Your task to perform on an android device: Open eBay Image 0: 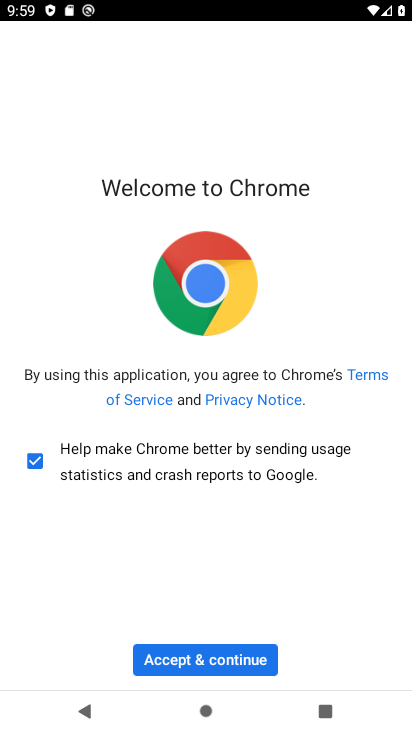
Step 0: press home button
Your task to perform on an android device: Open eBay Image 1: 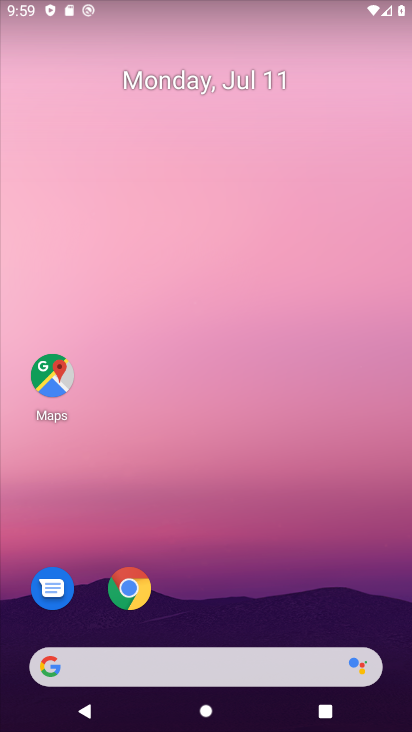
Step 1: drag from (201, 612) to (329, 75)
Your task to perform on an android device: Open eBay Image 2: 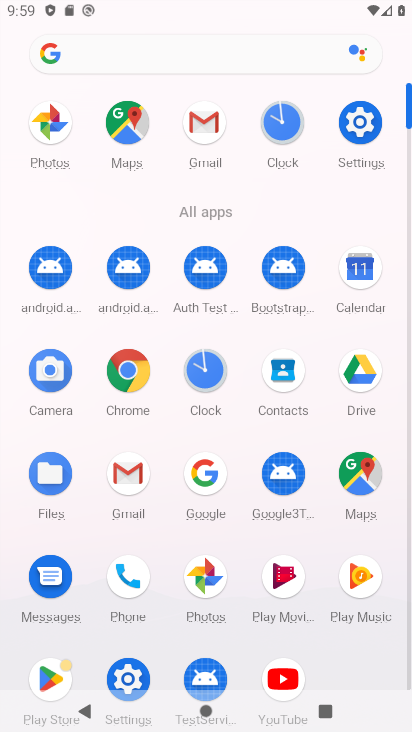
Step 2: click (124, 374)
Your task to perform on an android device: Open eBay Image 3: 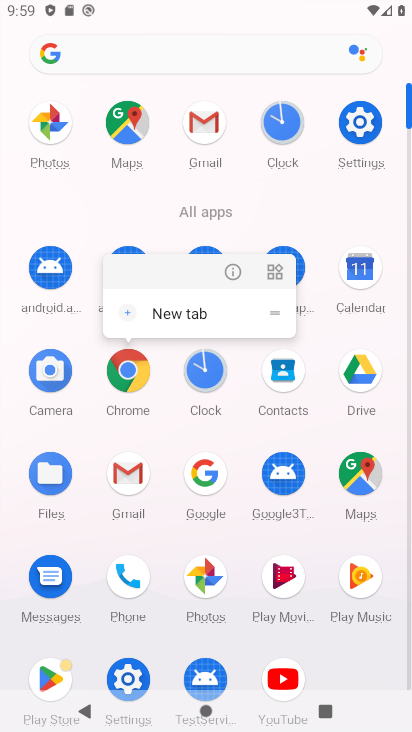
Step 3: click (124, 374)
Your task to perform on an android device: Open eBay Image 4: 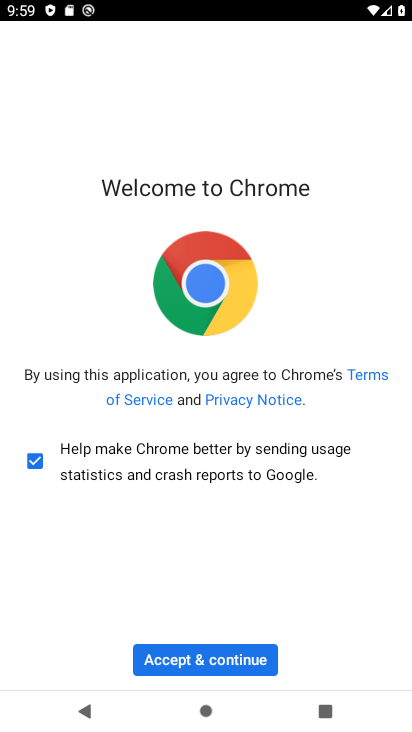
Step 4: click (230, 661)
Your task to perform on an android device: Open eBay Image 5: 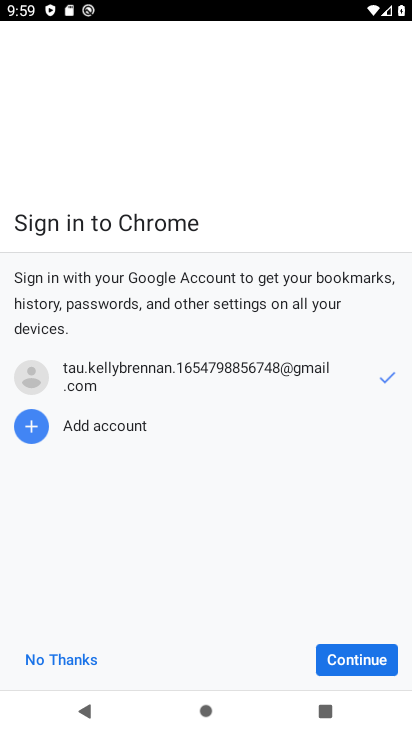
Step 5: click (372, 659)
Your task to perform on an android device: Open eBay Image 6: 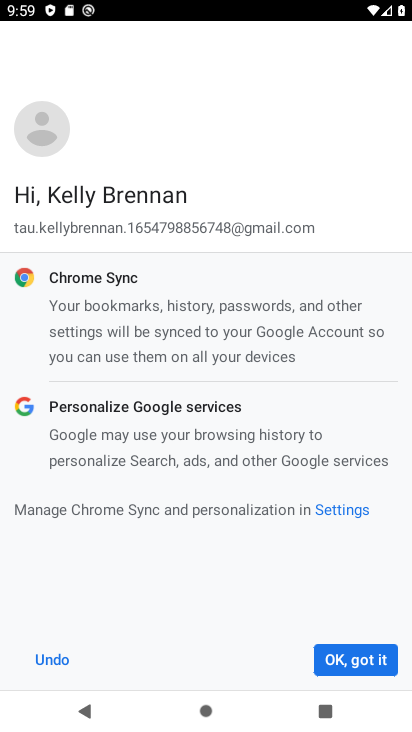
Step 6: click (375, 665)
Your task to perform on an android device: Open eBay Image 7: 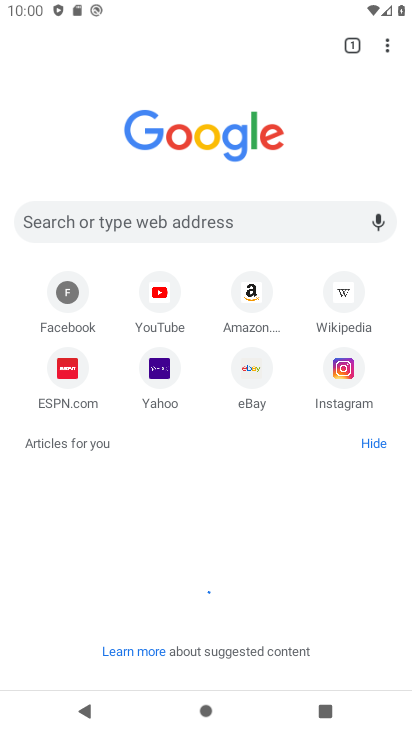
Step 7: click (249, 371)
Your task to perform on an android device: Open eBay Image 8: 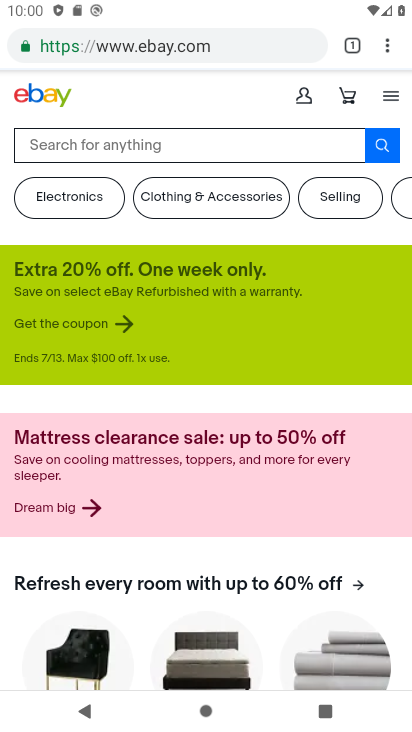
Step 8: task complete